Your task to perform on an android device: turn on location history Image 0: 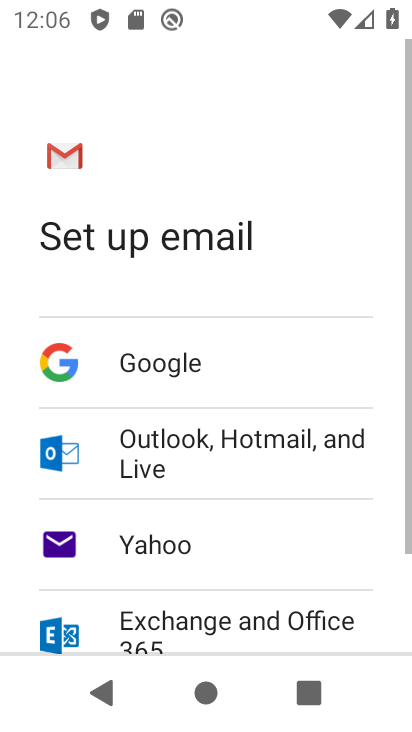
Step 0: press back button
Your task to perform on an android device: turn on location history Image 1: 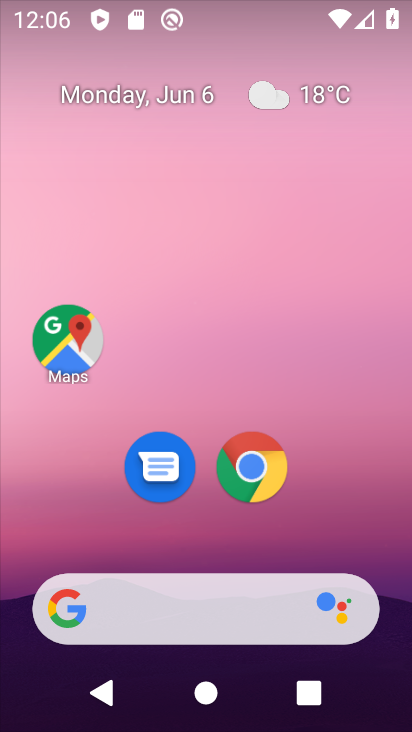
Step 1: drag from (329, 522) to (232, 48)
Your task to perform on an android device: turn on location history Image 2: 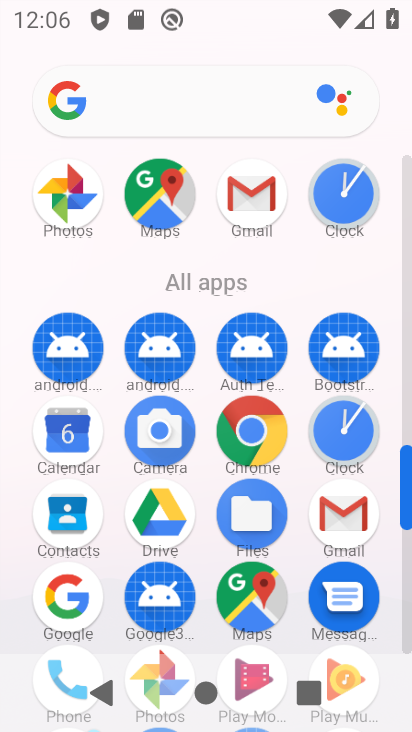
Step 2: drag from (299, 297) to (296, 67)
Your task to perform on an android device: turn on location history Image 3: 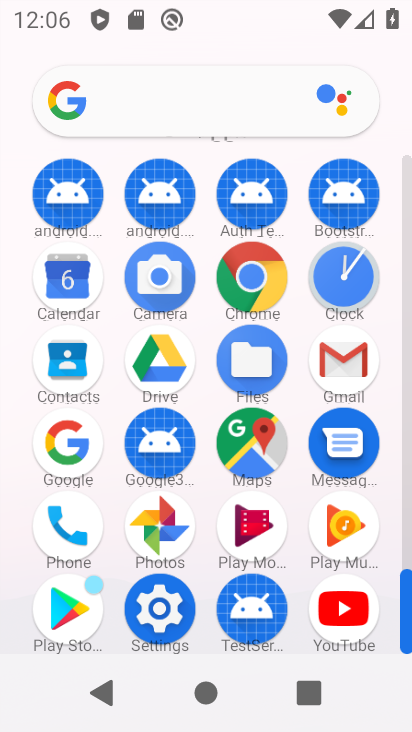
Step 3: click (159, 604)
Your task to perform on an android device: turn on location history Image 4: 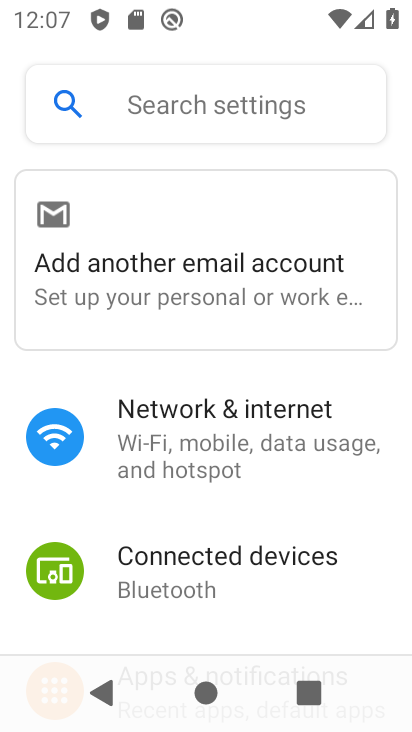
Step 4: drag from (190, 502) to (240, 390)
Your task to perform on an android device: turn on location history Image 5: 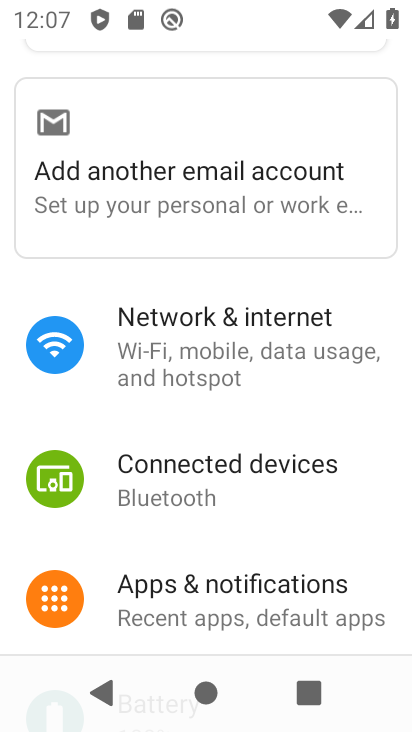
Step 5: drag from (194, 529) to (259, 412)
Your task to perform on an android device: turn on location history Image 6: 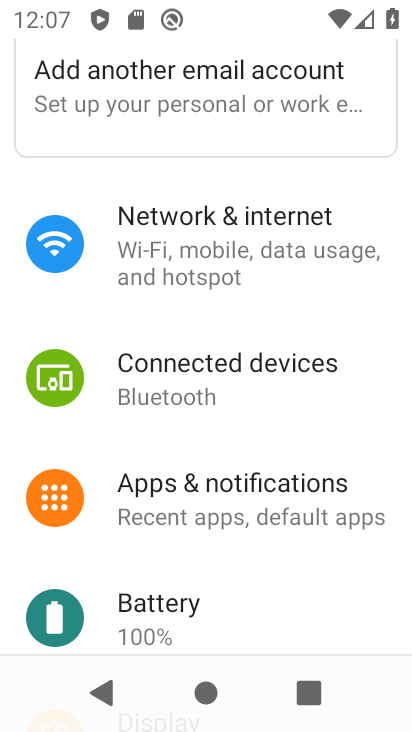
Step 6: drag from (188, 578) to (298, 446)
Your task to perform on an android device: turn on location history Image 7: 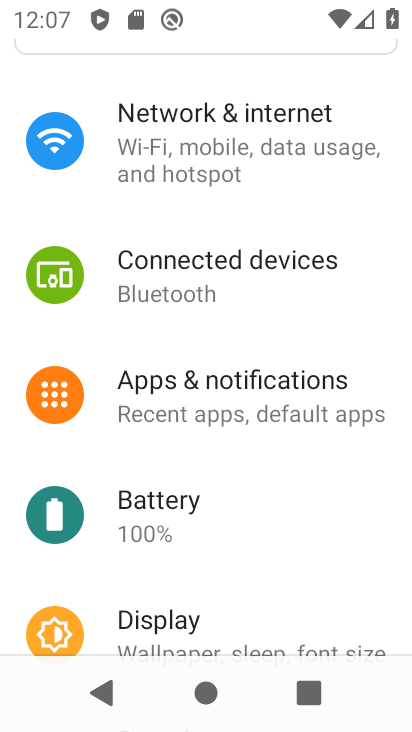
Step 7: drag from (179, 563) to (277, 423)
Your task to perform on an android device: turn on location history Image 8: 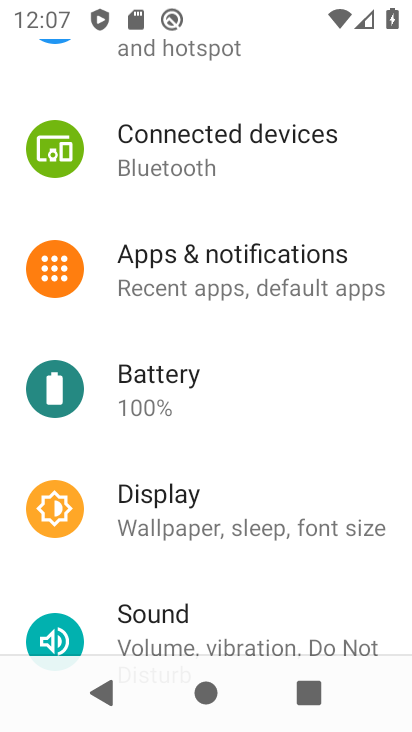
Step 8: drag from (152, 574) to (262, 436)
Your task to perform on an android device: turn on location history Image 9: 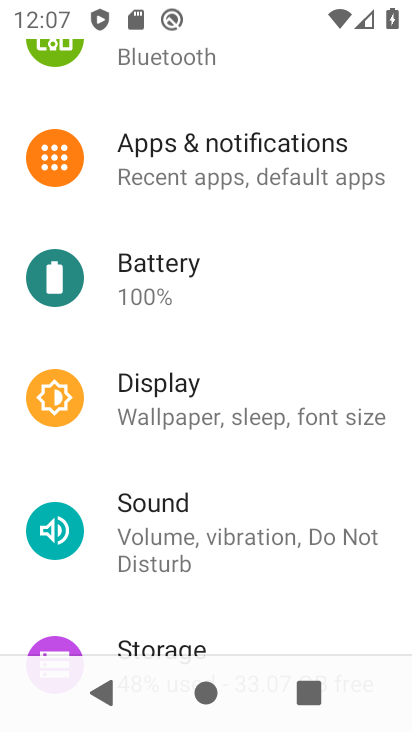
Step 9: drag from (164, 601) to (278, 439)
Your task to perform on an android device: turn on location history Image 10: 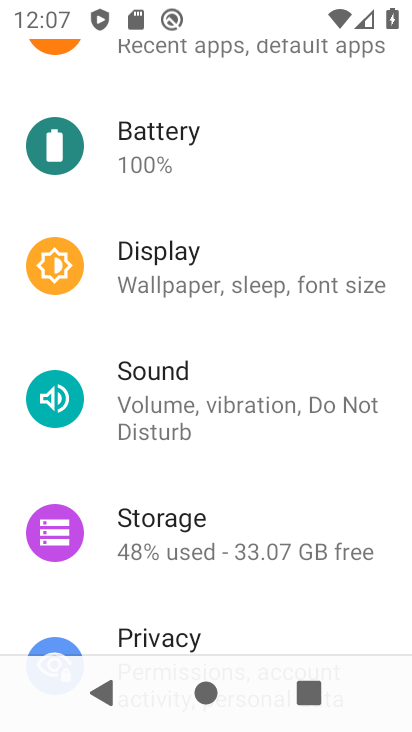
Step 10: drag from (159, 591) to (240, 426)
Your task to perform on an android device: turn on location history Image 11: 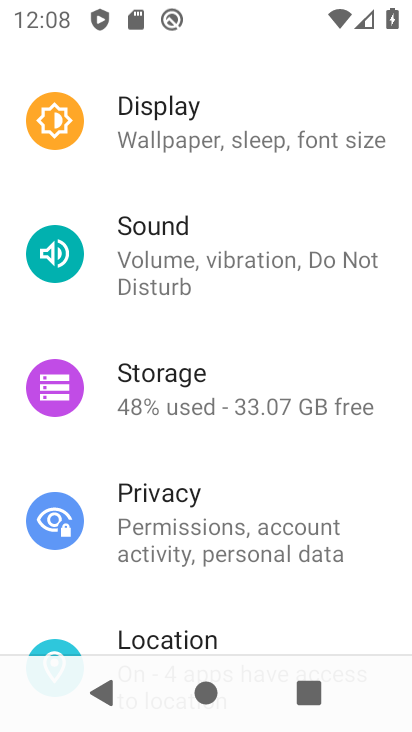
Step 11: drag from (271, 502) to (324, 359)
Your task to perform on an android device: turn on location history Image 12: 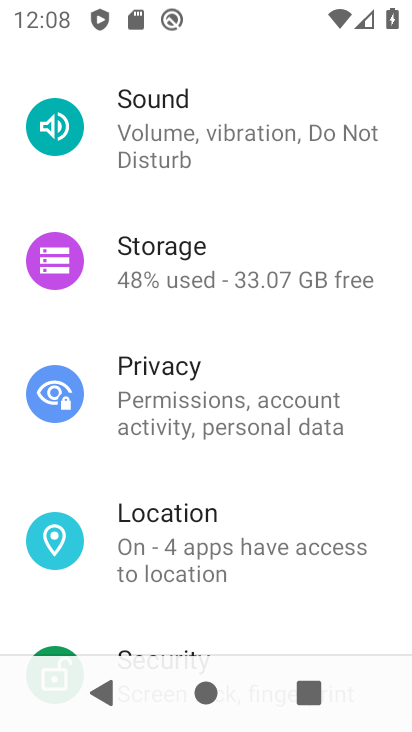
Step 12: drag from (215, 468) to (276, 384)
Your task to perform on an android device: turn on location history Image 13: 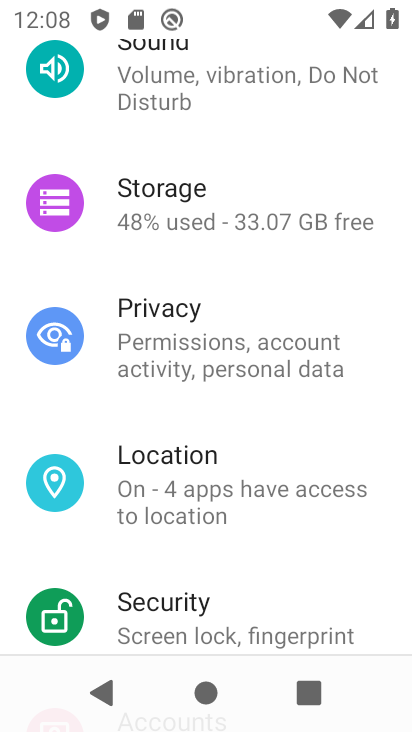
Step 13: drag from (236, 433) to (298, 347)
Your task to perform on an android device: turn on location history Image 14: 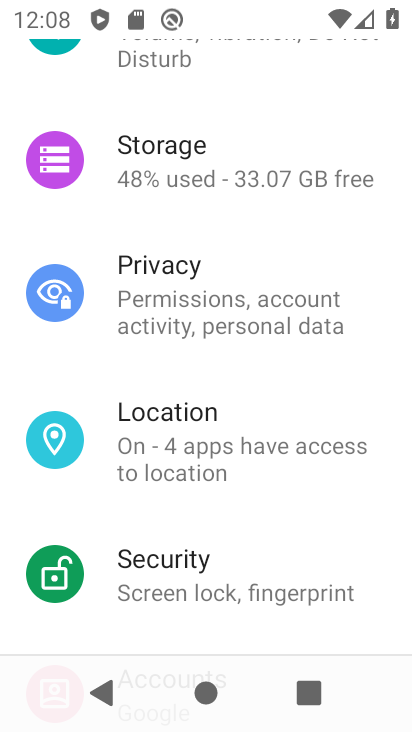
Step 14: click (201, 431)
Your task to perform on an android device: turn on location history Image 15: 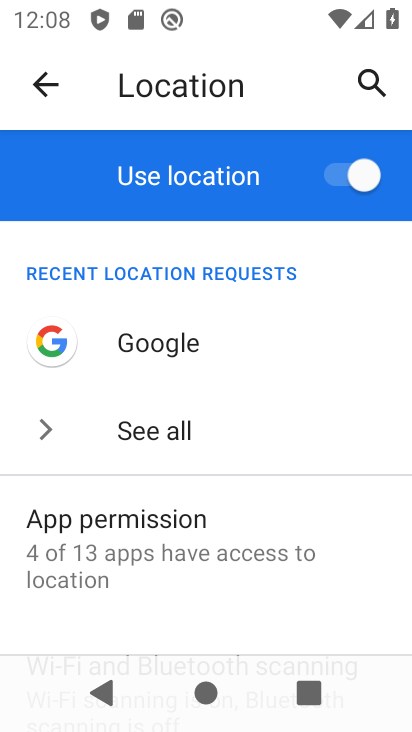
Step 15: drag from (134, 597) to (229, 427)
Your task to perform on an android device: turn on location history Image 16: 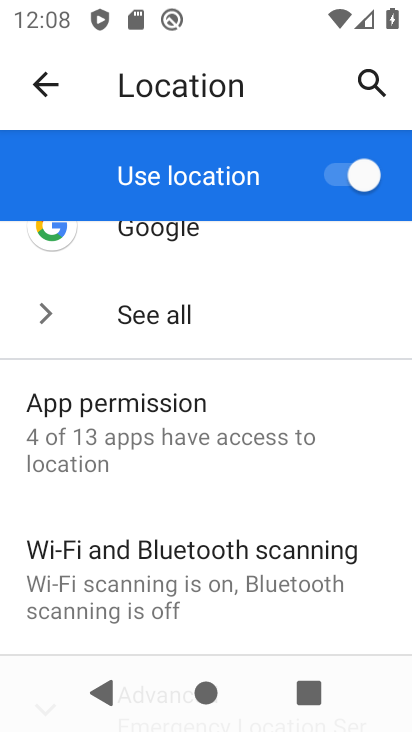
Step 16: drag from (211, 613) to (259, 436)
Your task to perform on an android device: turn on location history Image 17: 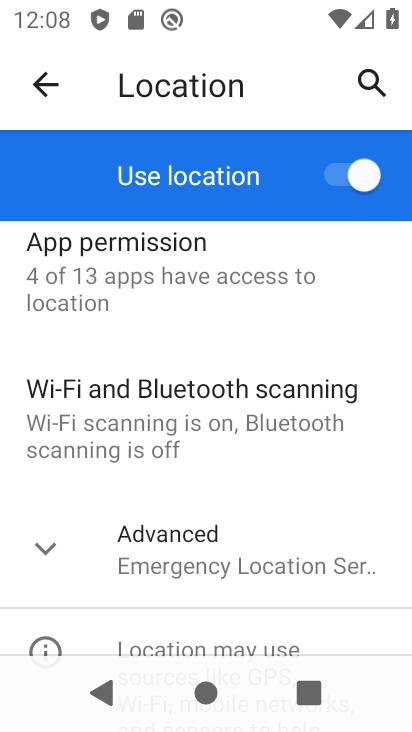
Step 17: click (264, 563)
Your task to perform on an android device: turn on location history Image 18: 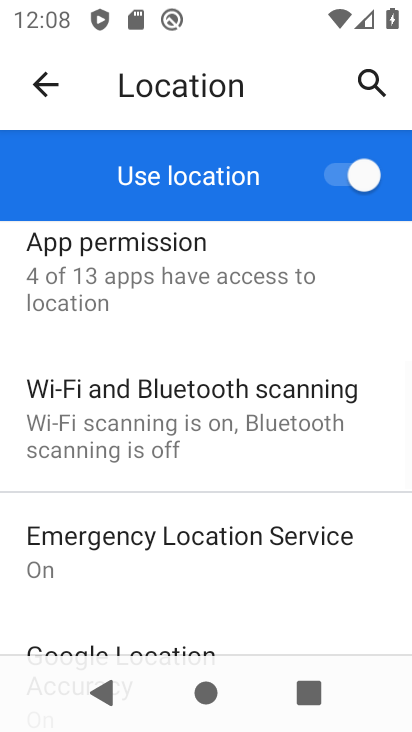
Step 18: drag from (210, 577) to (276, 468)
Your task to perform on an android device: turn on location history Image 19: 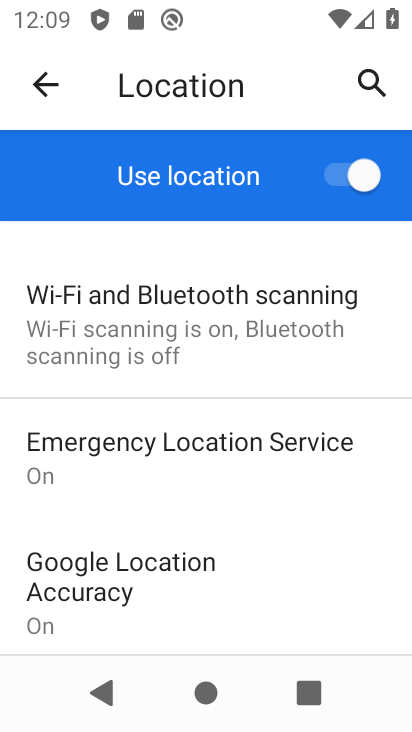
Step 19: drag from (233, 593) to (340, 479)
Your task to perform on an android device: turn on location history Image 20: 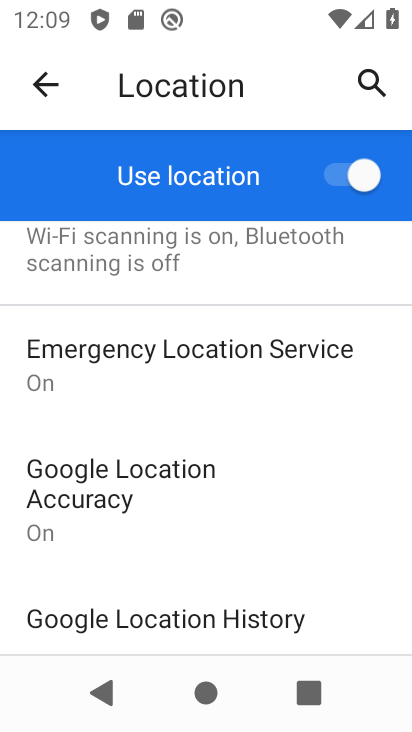
Step 20: drag from (215, 556) to (300, 447)
Your task to perform on an android device: turn on location history Image 21: 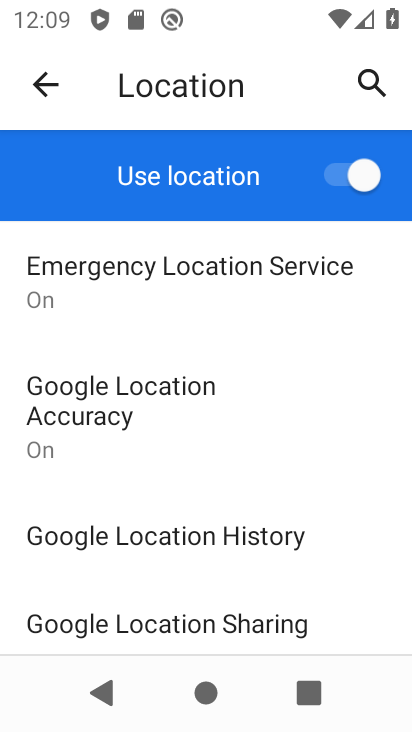
Step 21: click (259, 528)
Your task to perform on an android device: turn on location history Image 22: 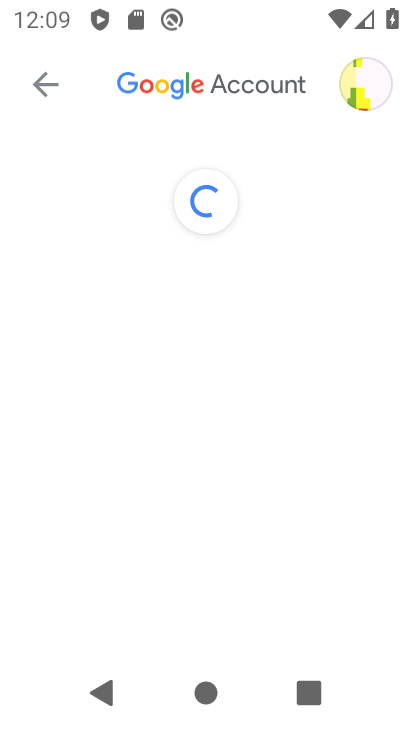
Step 22: task complete